Your task to perform on an android device: install app "Grab" Image 0: 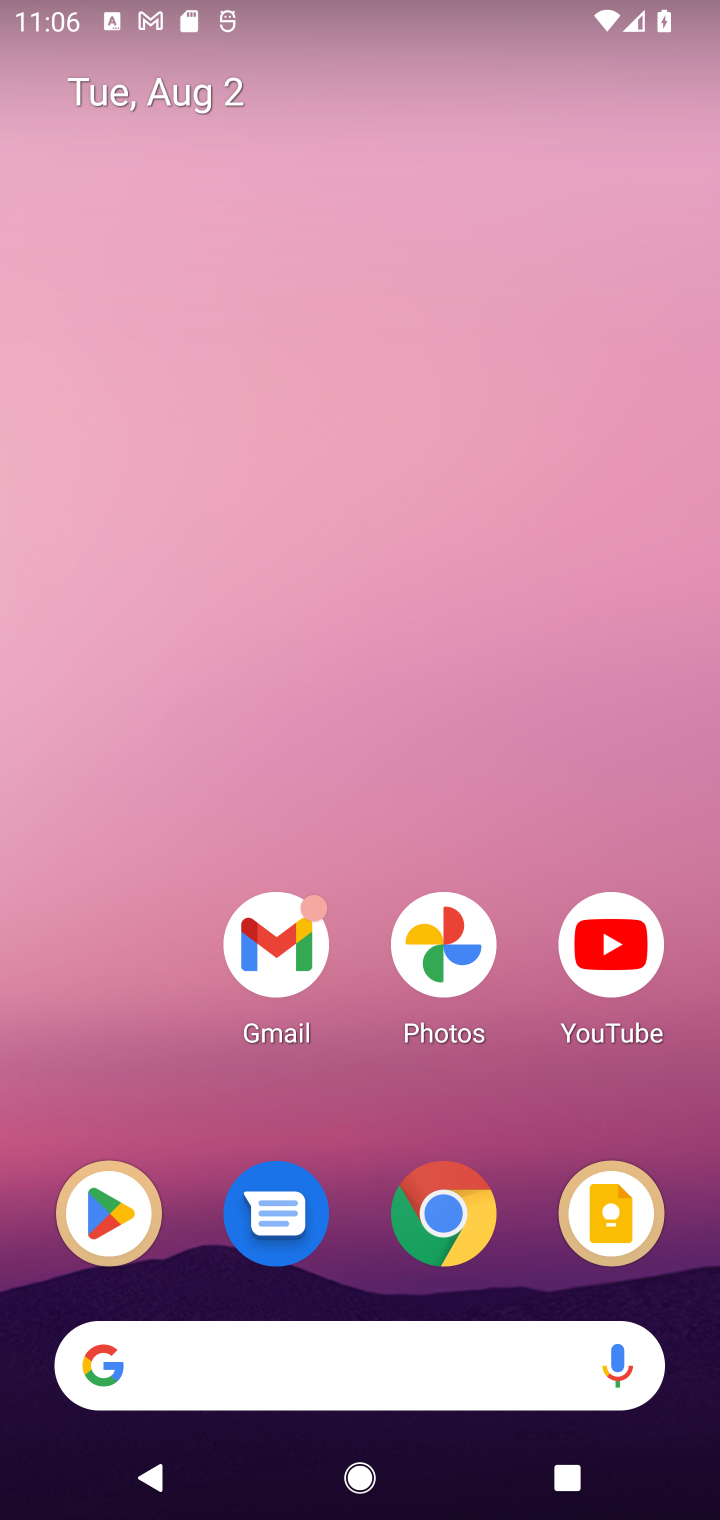
Step 0: click (125, 1234)
Your task to perform on an android device: install app "Grab" Image 1: 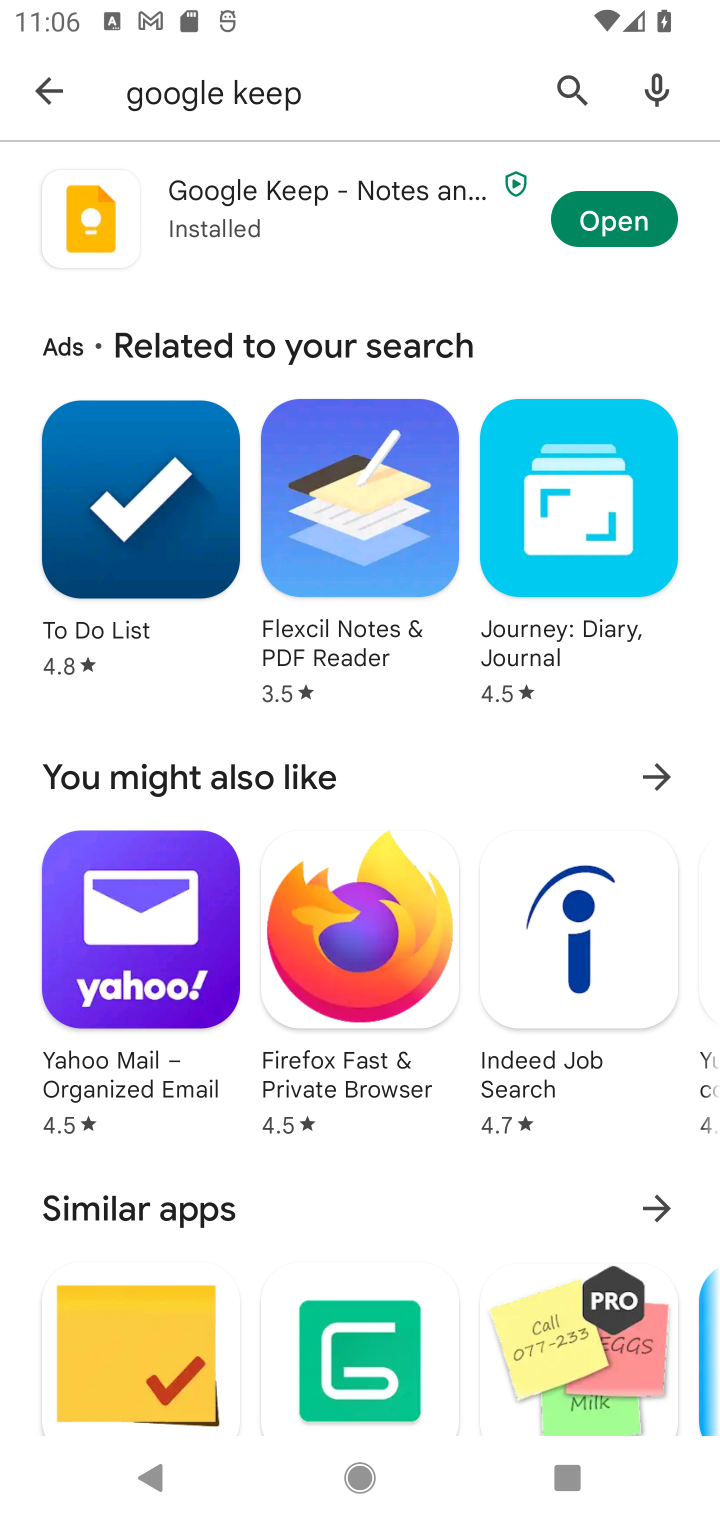
Step 1: click (34, 89)
Your task to perform on an android device: install app "Grab" Image 2: 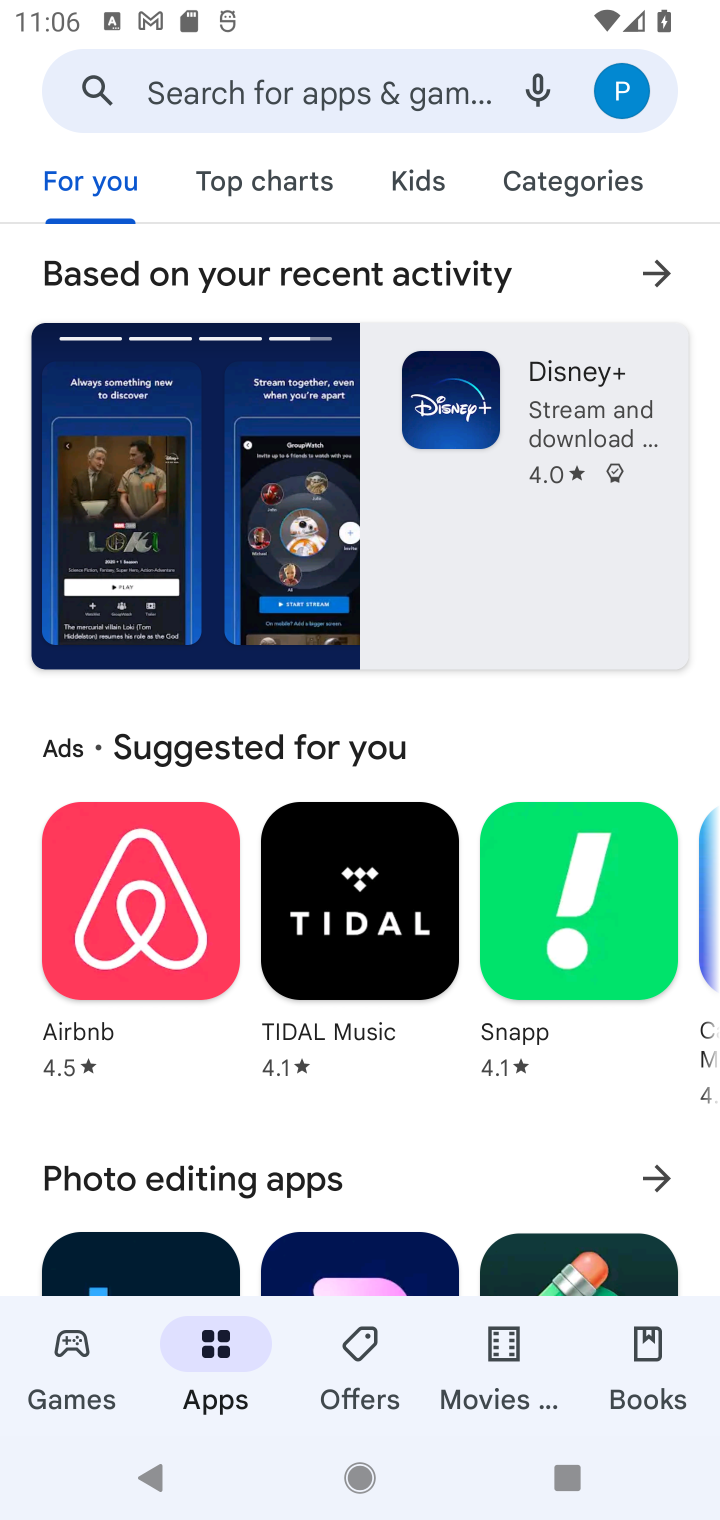
Step 2: click (348, 66)
Your task to perform on an android device: install app "Grab" Image 3: 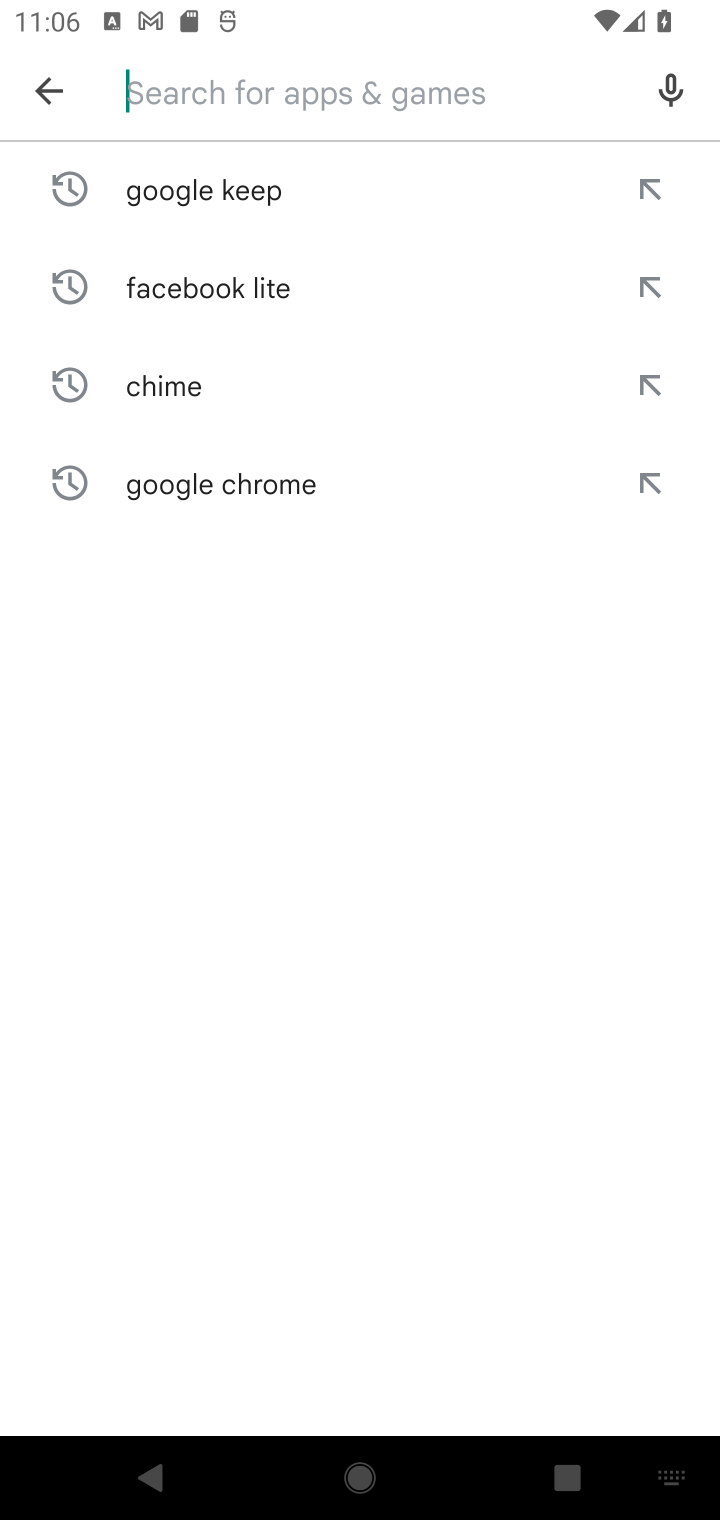
Step 3: type "Grab"
Your task to perform on an android device: install app "Grab" Image 4: 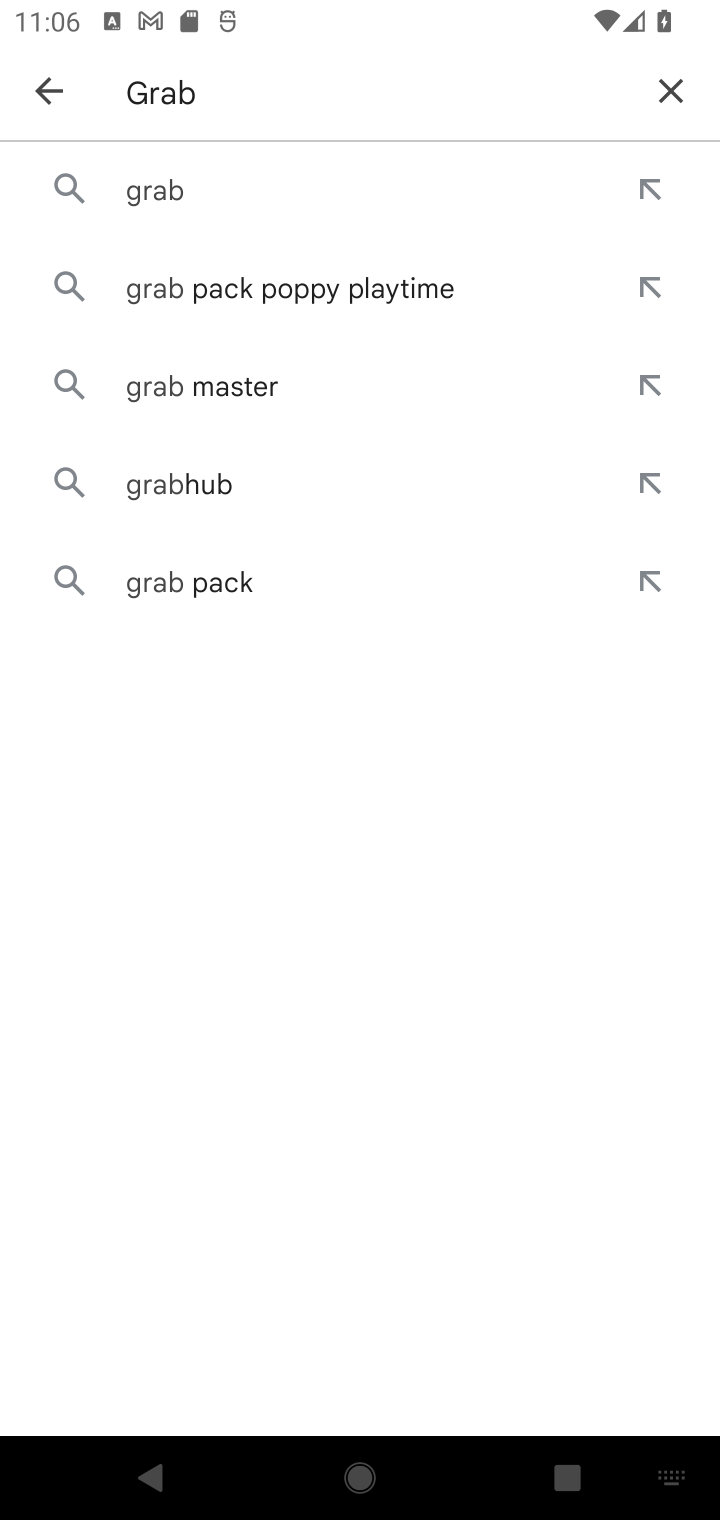
Step 4: click (158, 201)
Your task to perform on an android device: install app "Grab" Image 5: 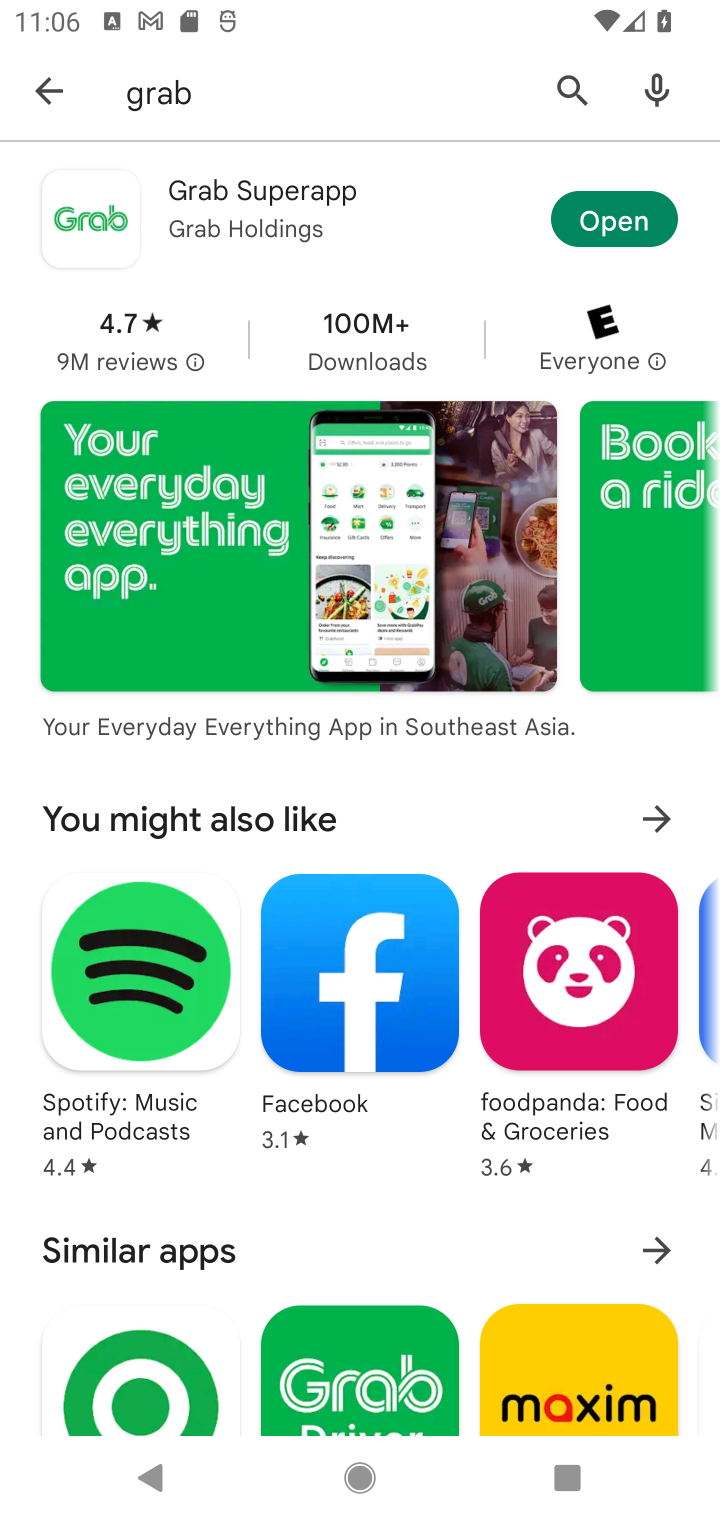
Step 5: click (625, 217)
Your task to perform on an android device: install app "Grab" Image 6: 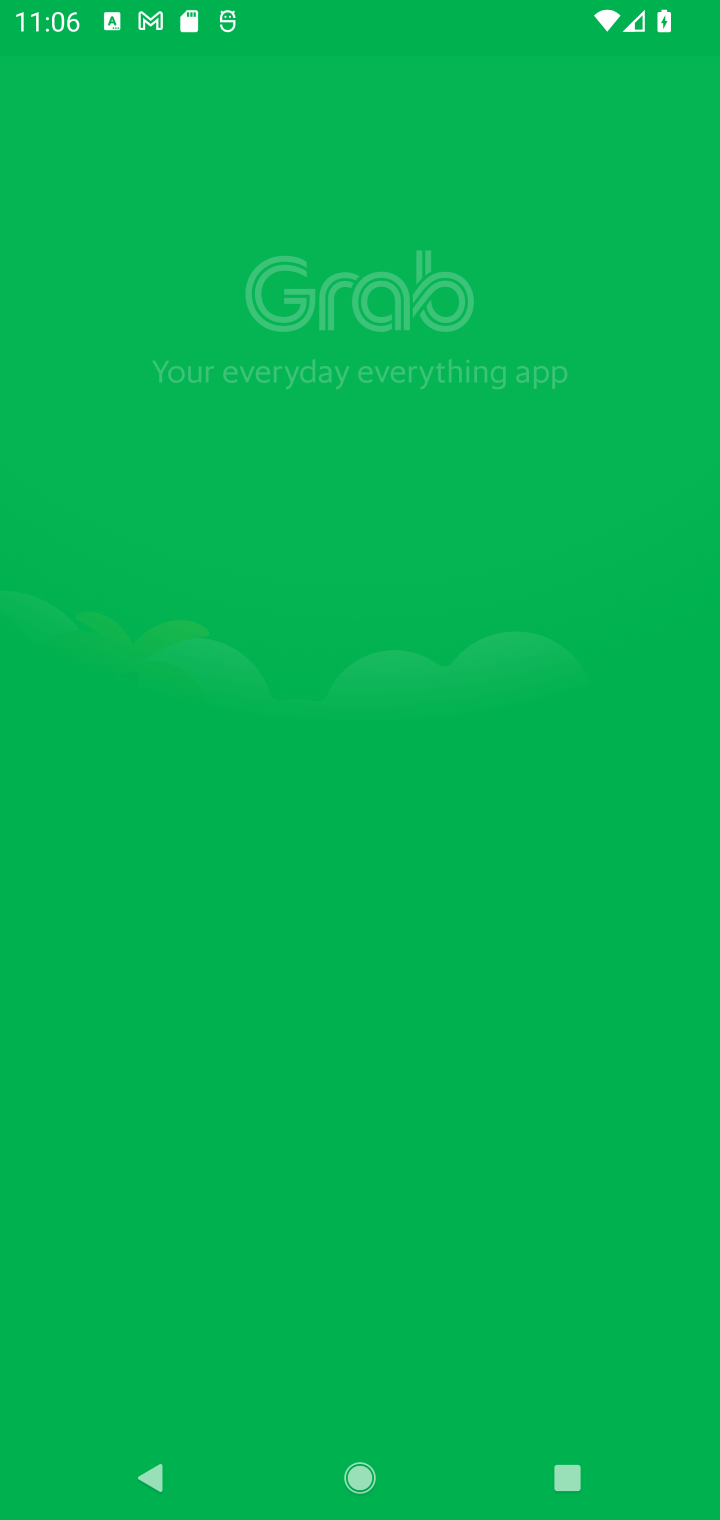
Step 6: task complete